Your task to perform on an android device: Search for vegetarian restaurants on Maps Image 0: 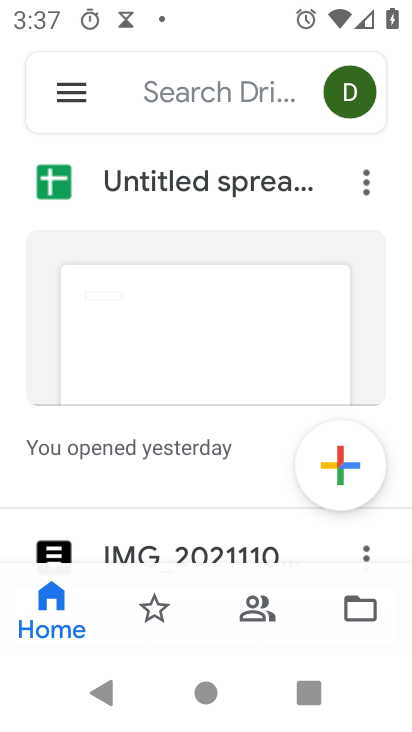
Step 0: press home button
Your task to perform on an android device: Search for vegetarian restaurants on Maps Image 1: 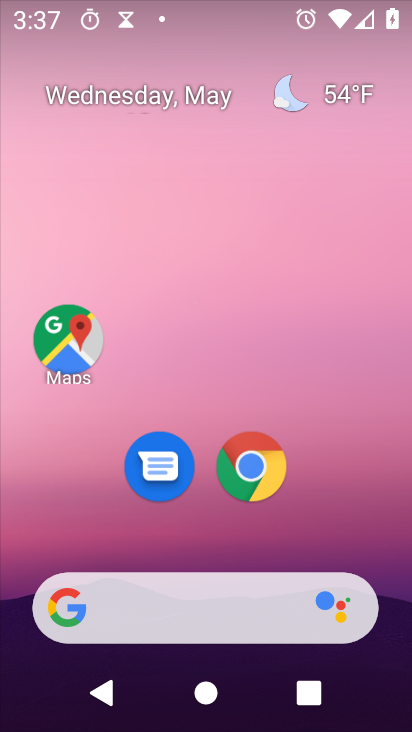
Step 1: click (83, 346)
Your task to perform on an android device: Search for vegetarian restaurants on Maps Image 2: 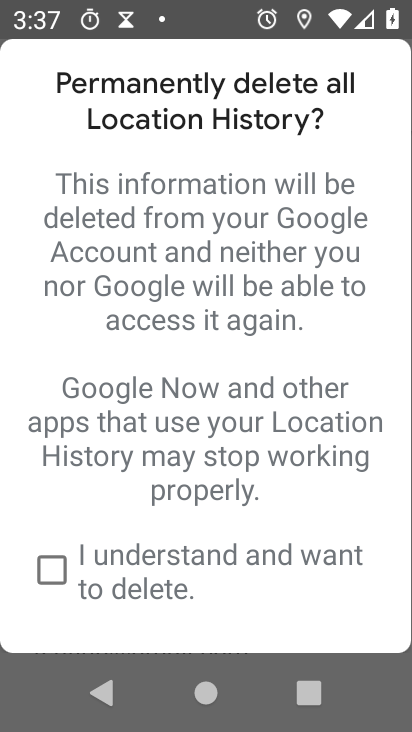
Step 2: press back button
Your task to perform on an android device: Search for vegetarian restaurants on Maps Image 3: 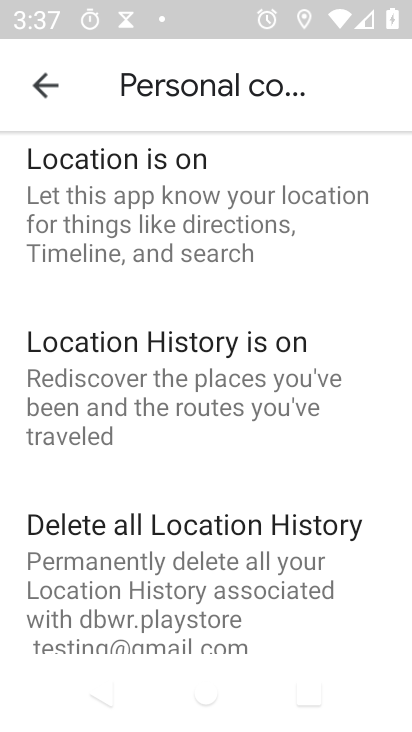
Step 3: press back button
Your task to perform on an android device: Search for vegetarian restaurants on Maps Image 4: 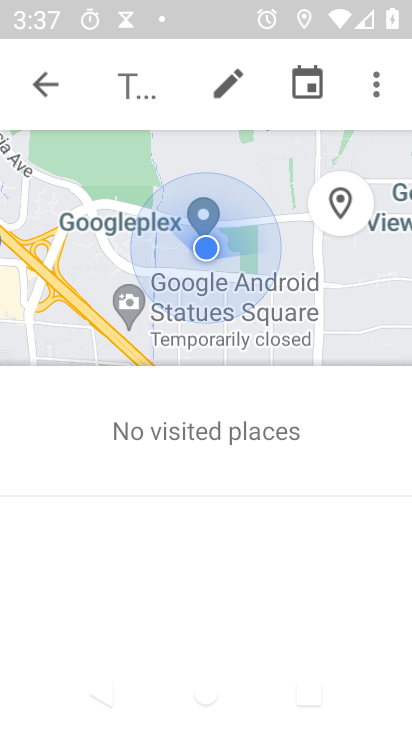
Step 4: click (39, 98)
Your task to perform on an android device: Search for vegetarian restaurants on Maps Image 5: 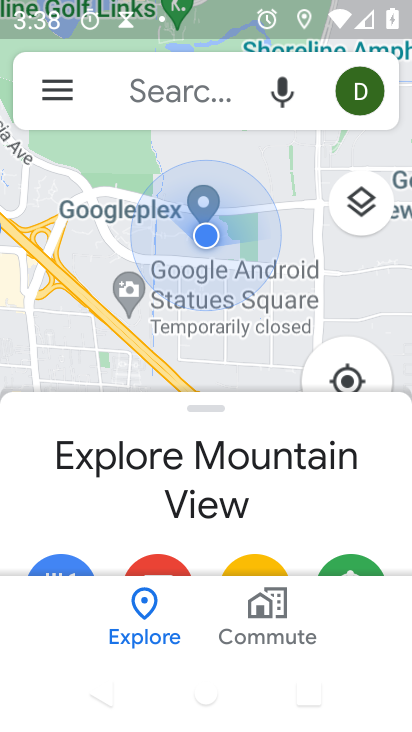
Step 5: click (174, 74)
Your task to perform on an android device: Search for vegetarian restaurants on Maps Image 6: 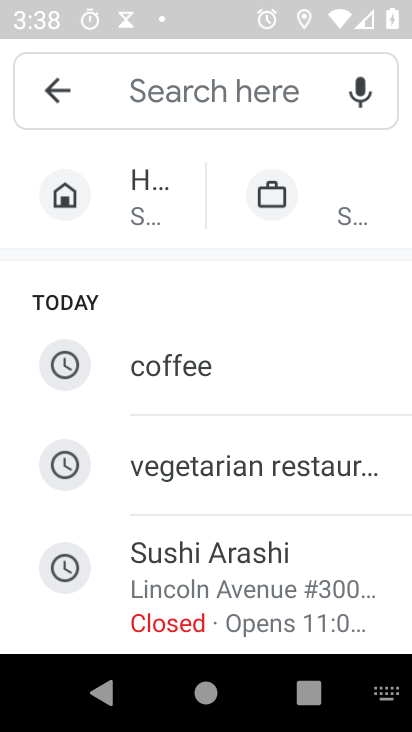
Step 6: click (174, 74)
Your task to perform on an android device: Search for vegetarian restaurants on Maps Image 7: 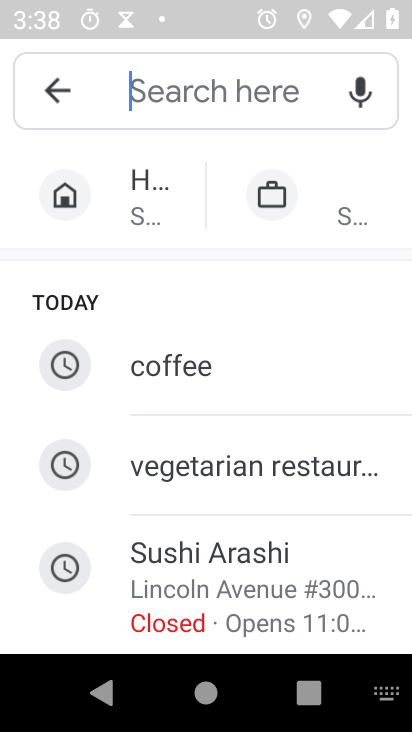
Step 7: click (289, 485)
Your task to perform on an android device: Search for vegetarian restaurants on Maps Image 8: 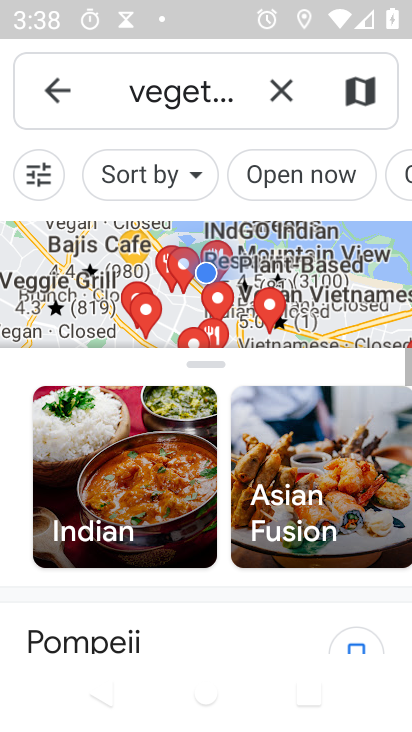
Step 8: task complete